Your task to perform on an android device: add a contact in the contacts app Image 0: 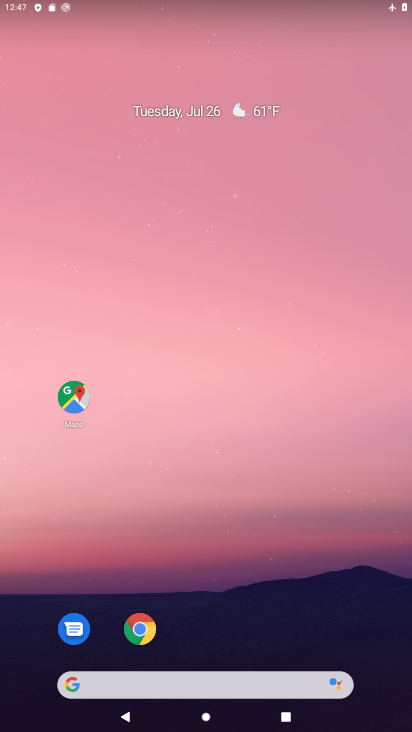
Step 0: drag from (195, 573) to (387, 5)
Your task to perform on an android device: add a contact in the contacts app Image 1: 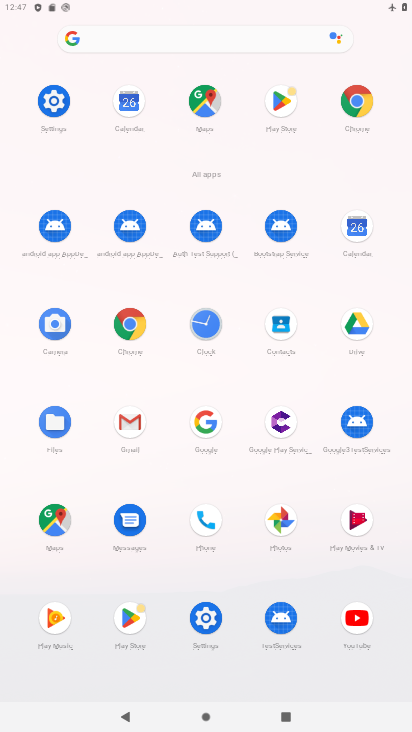
Step 1: click (207, 524)
Your task to perform on an android device: add a contact in the contacts app Image 2: 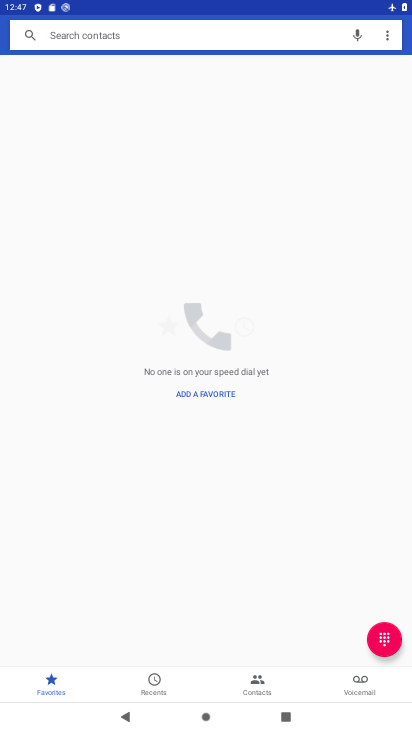
Step 2: click (259, 662)
Your task to perform on an android device: add a contact in the contacts app Image 3: 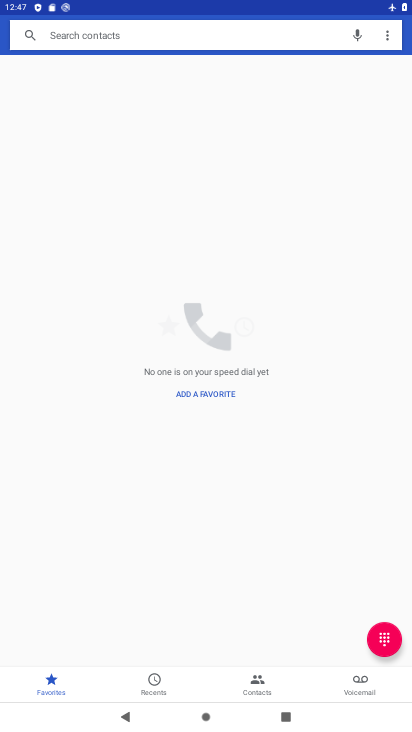
Step 3: click (261, 680)
Your task to perform on an android device: add a contact in the contacts app Image 4: 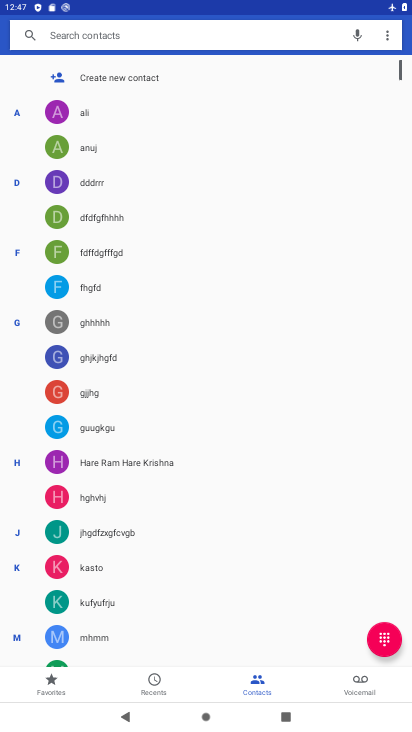
Step 4: click (163, 77)
Your task to perform on an android device: add a contact in the contacts app Image 5: 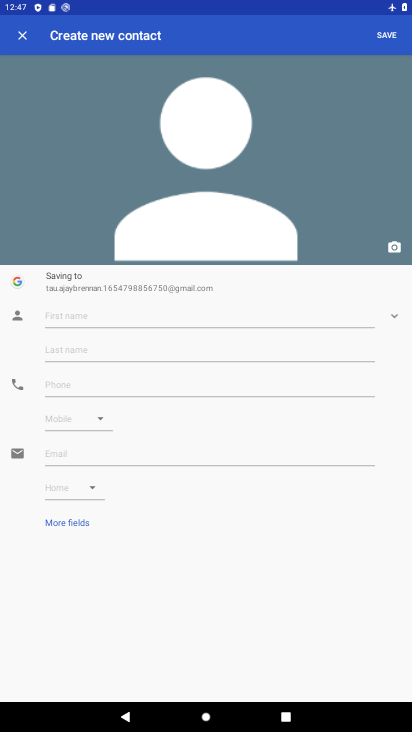
Step 5: click (100, 324)
Your task to perform on an android device: add a contact in the contacts app Image 6: 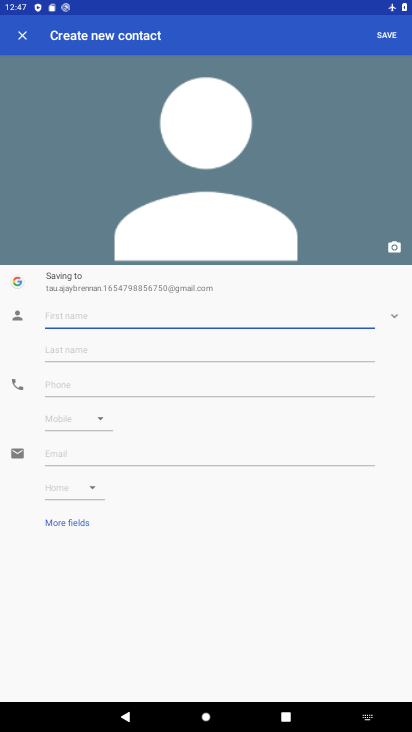
Step 6: type "app"
Your task to perform on an android device: add a contact in the contacts app Image 7: 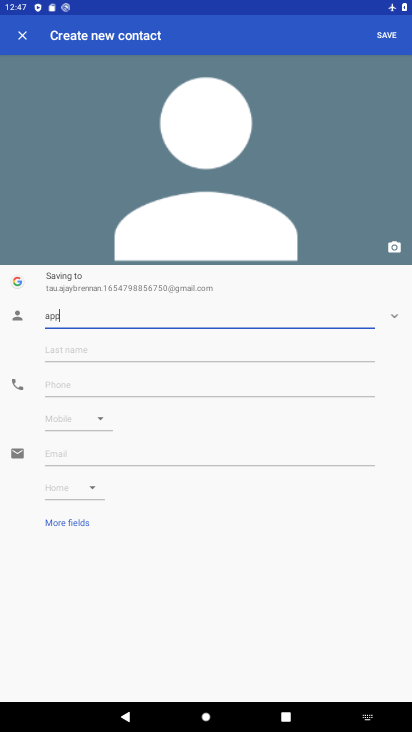
Step 7: type ""
Your task to perform on an android device: add a contact in the contacts app Image 8: 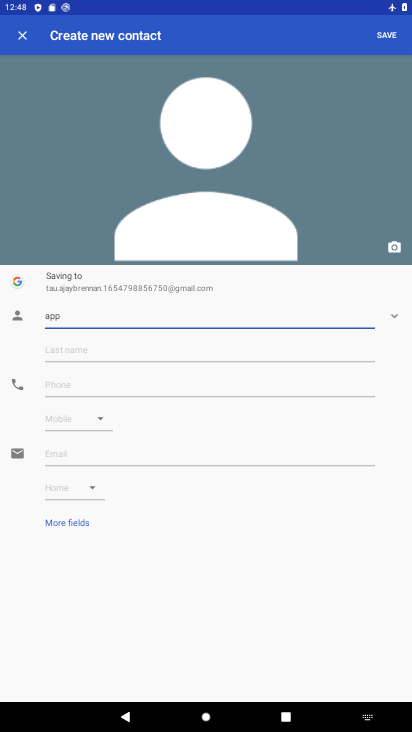
Step 8: click (394, 36)
Your task to perform on an android device: add a contact in the contacts app Image 9: 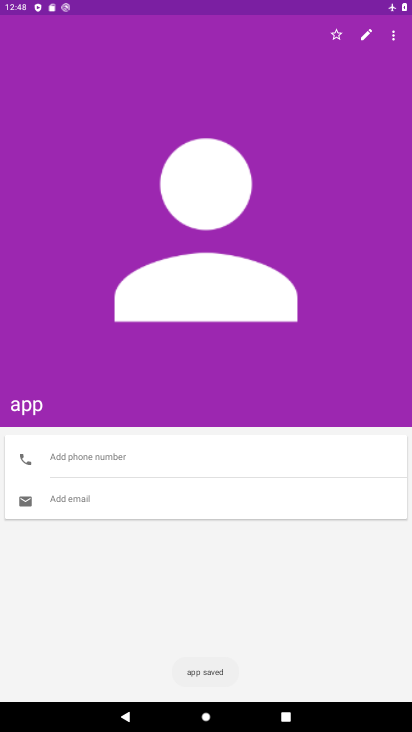
Step 9: task complete